Your task to perform on an android device: Check the news Image 0: 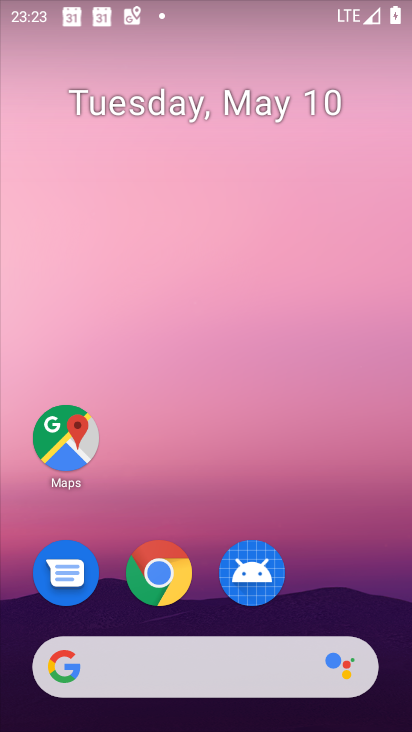
Step 0: drag from (13, 271) to (399, 285)
Your task to perform on an android device: Check the news Image 1: 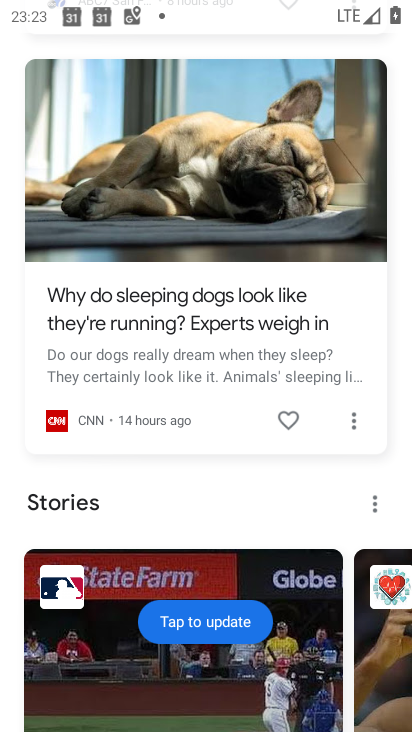
Step 1: task complete